Your task to perform on an android device: Show me the alarms in the clock app Image 0: 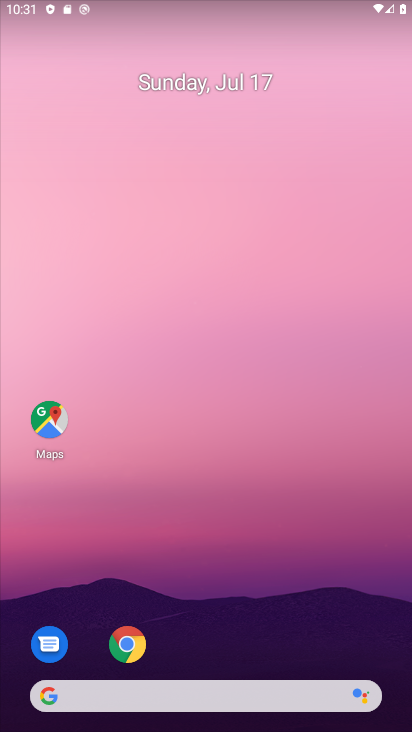
Step 0: drag from (251, 612) to (228, 1)
Your task to perform on an android device: Show me the alarms in the clock app Image 1: 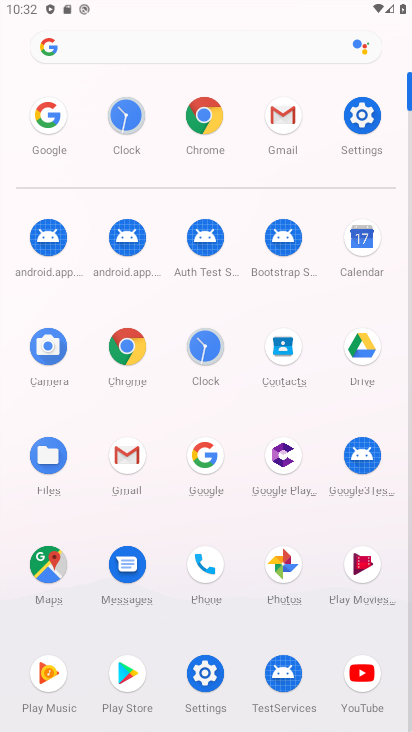
Step 1: click (135, 110)
Your task to perform on an android device: Show me the alarms in the clock app Image 2: 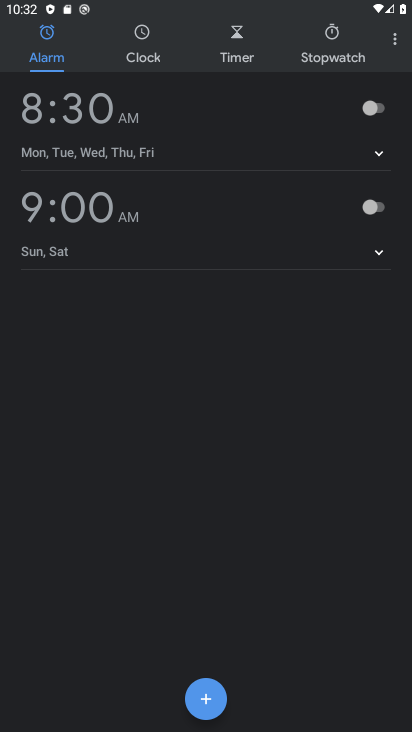
Step 2: task complete